Your task to perform on an android device: Go to internet settings Image 0: 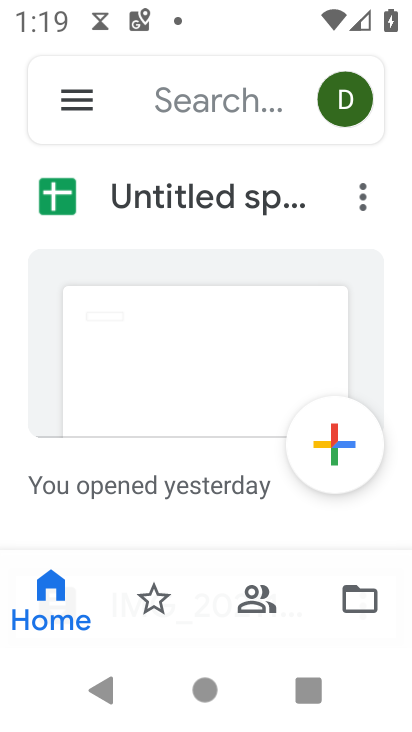
Step 0: press home button
Your task to perform on an android device: Go to internet settings Image 1: 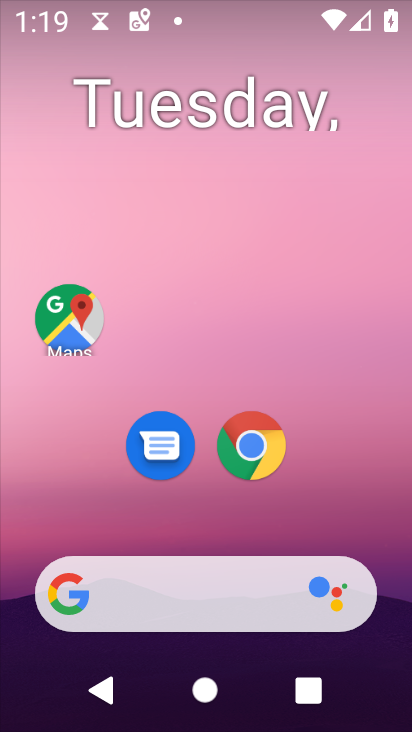
Step 1: drag from (335, 594) to (358, 4)
Your task to perform on an android device: Go to internet settings Image 2: 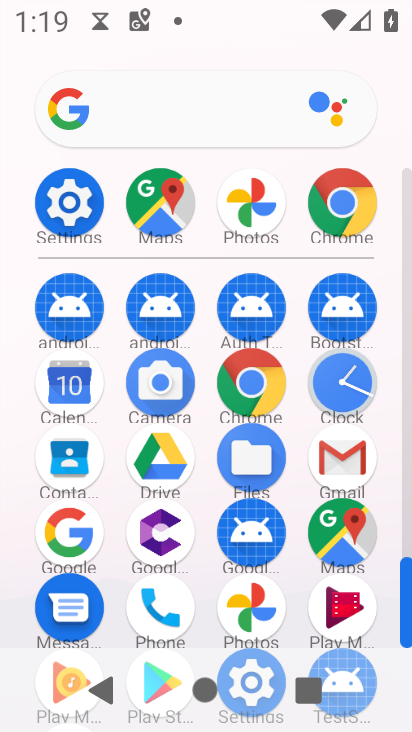
Step 2: click (76, 197)
Your task to perform on an android device: Go to internet settings Image 3: 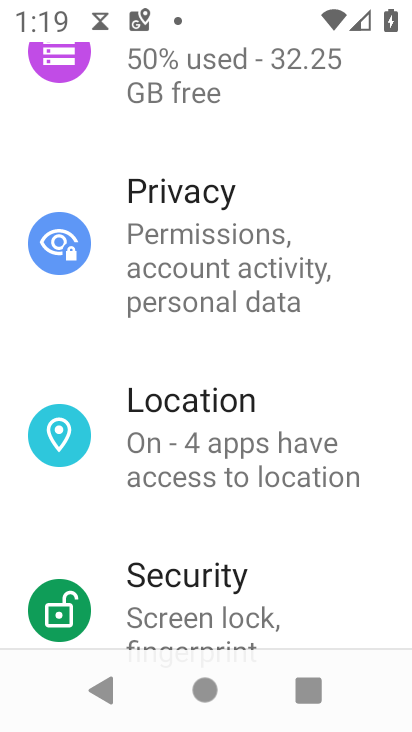
Step 3: drag from (261, 195) to (213, 660)
Your task to perform on an android device: Go to internet settings Image 4: 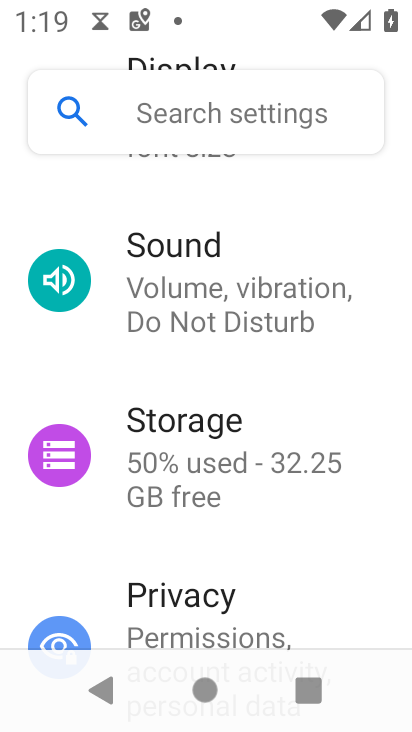
Step 4: drag from (270, 242) to (248, 650)
Your task to perform on an android device: Go to internet settings Image 5: 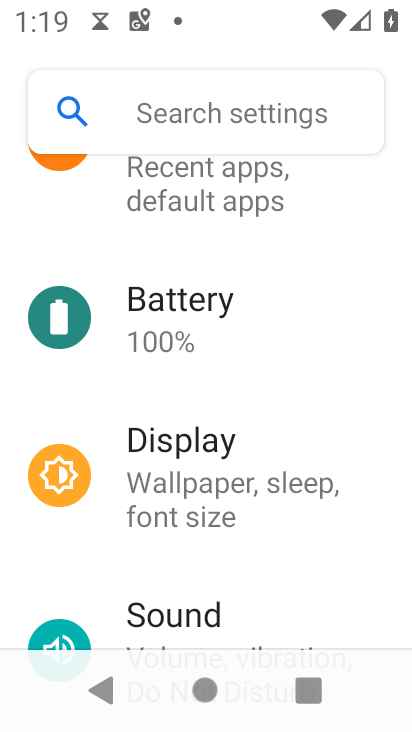
Step 5: drag from (239, 288) to (243, 672)
Your task to perform on an android device: Go to internet settings Image 6: 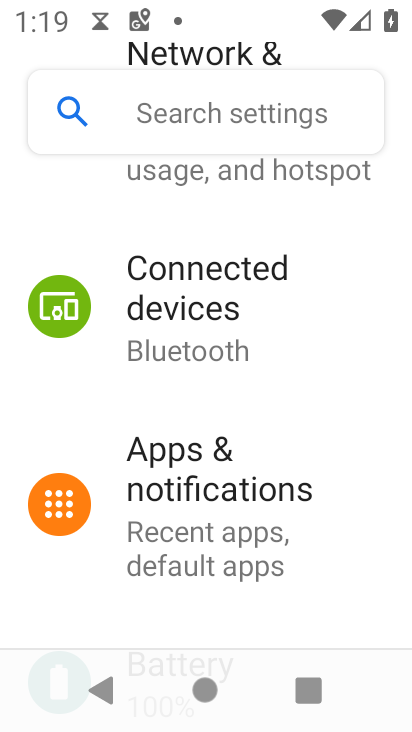
Step 6: drag from (241, 354) to (240, 709)
Your task to perform on an android device: Go to internet settings Image 7: 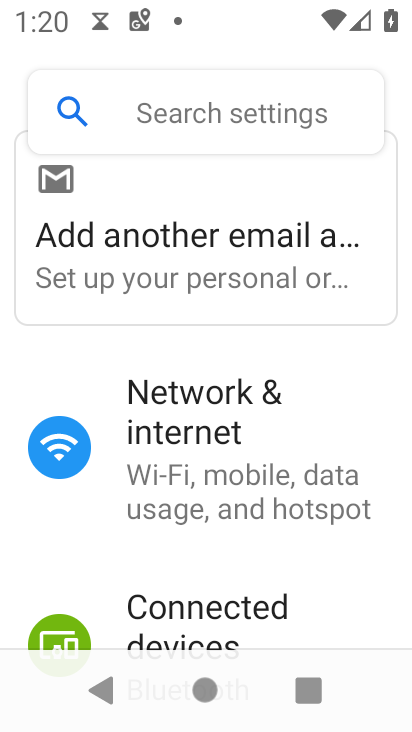
Step 7: click (257, 467)
Your task to perform on an android device: Go to internet settings Image 8: 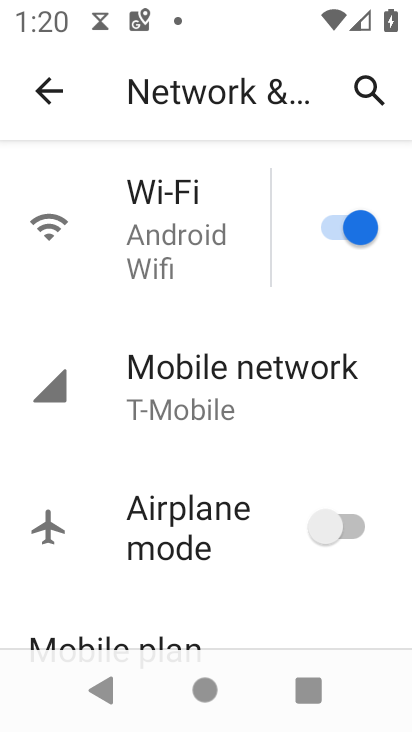
Step 8: task complete